Your task to perform on an android device: Open my contact list Image 0: 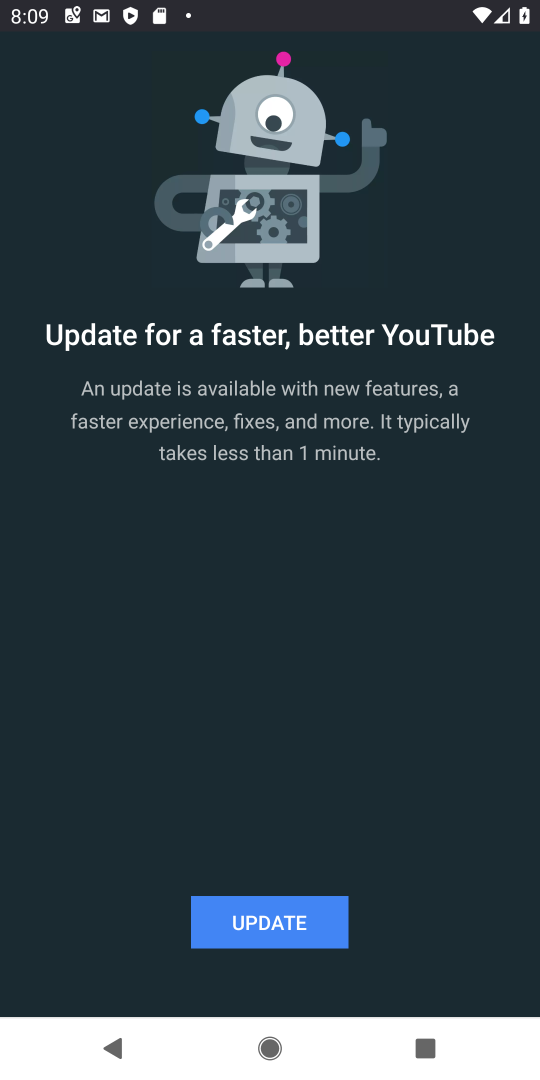
Step 0: press home button
Your task to perform on an android device: Open my contact list Image 1: 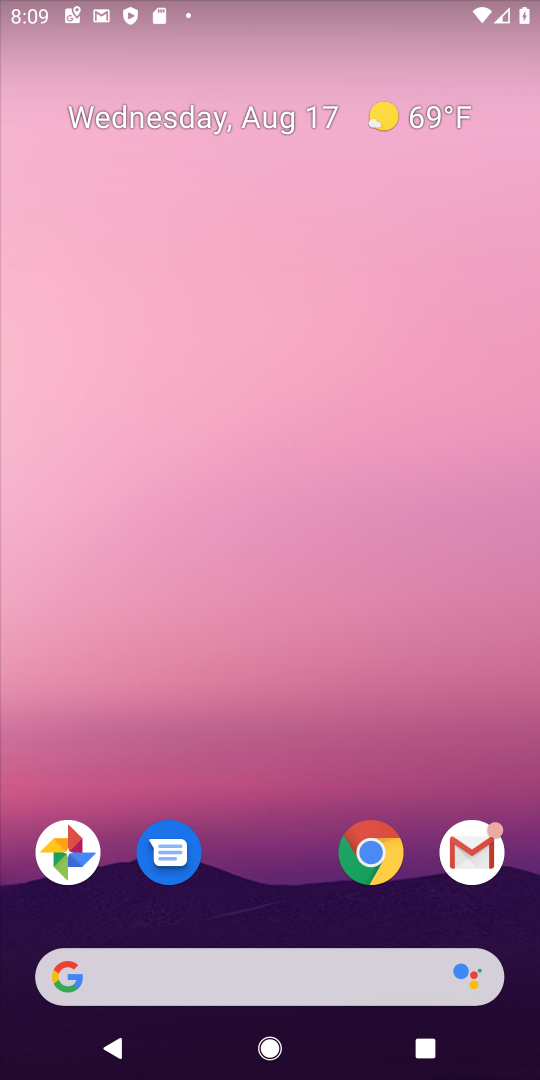
Step 1: drag from (267, 920) to (258, 462)
Your task to perform on an android device: Open my contact list Image 2: 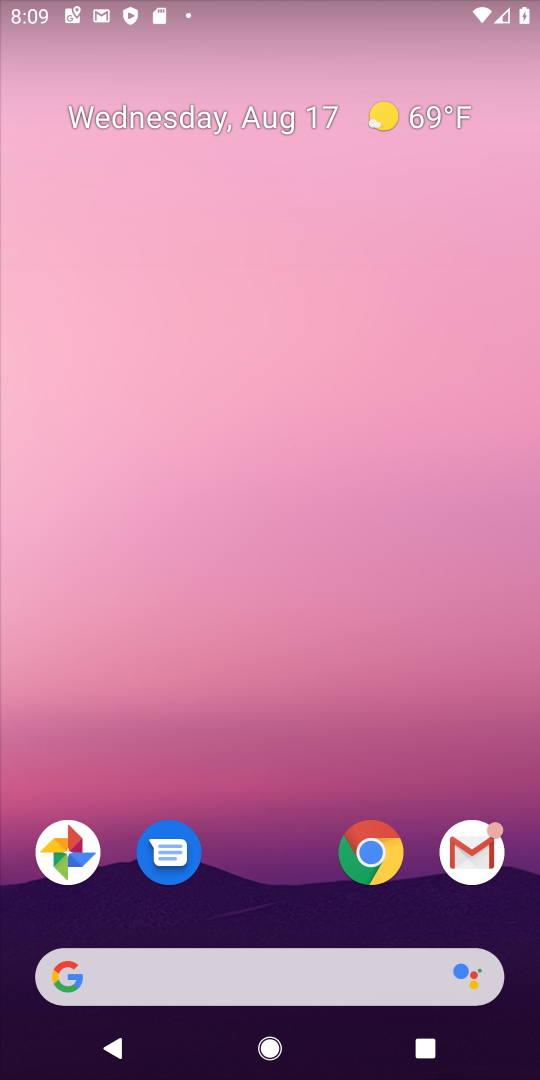
Step 2: drag from (272, 924) to (198, 303)
Your task to perform on an android device: Open my contact list Image 3: 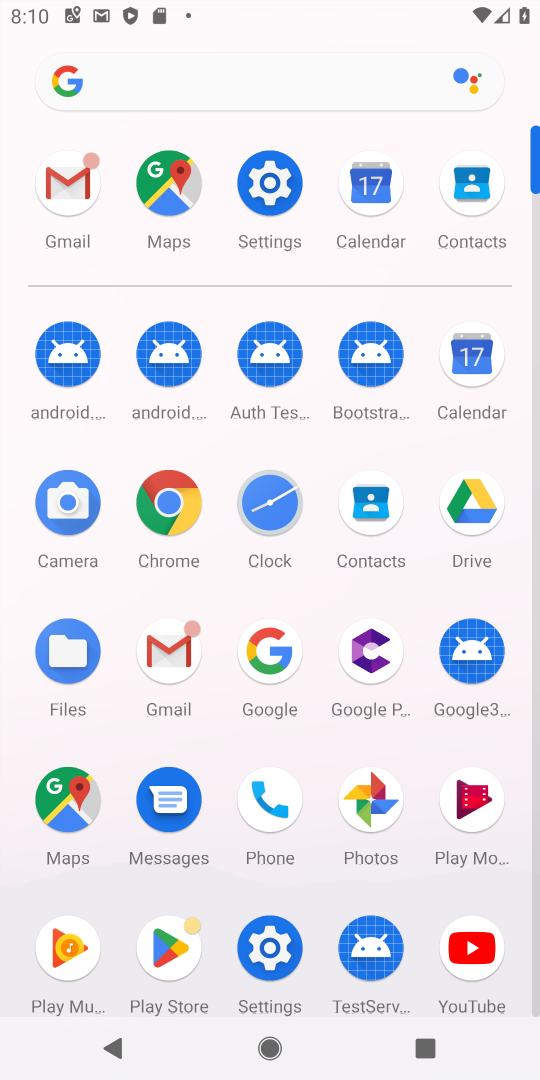
Step 3: click (370, 513)
Your task to perform on an android device: Open my contact list Image 4: 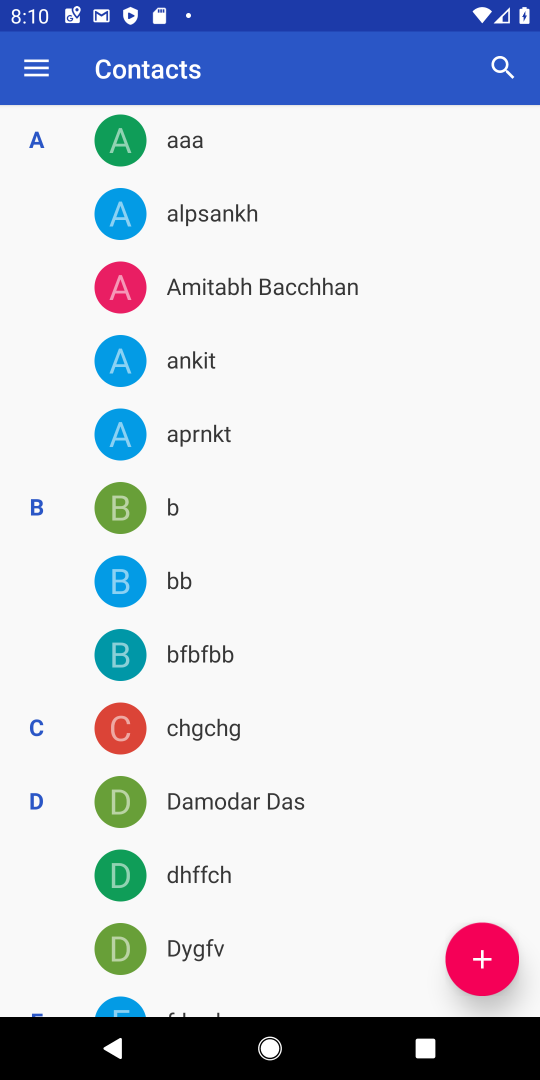
Step 4: task complete